Your task to perform on an android device: turn on airplane mode Image 0: 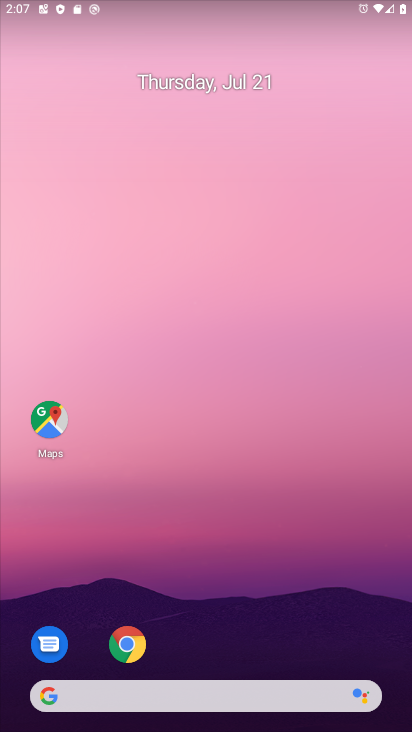
Step 0: drag from (224, 4) to (238, 484)
Your task to perform on an android device: turn on airplane mode Image 1: 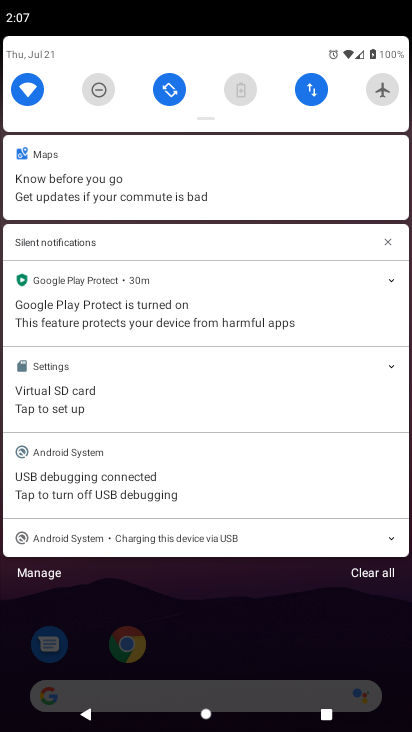
Step 1: click (373, 91)
Your task to perform on an android device: turn on airplane mode Image 2: 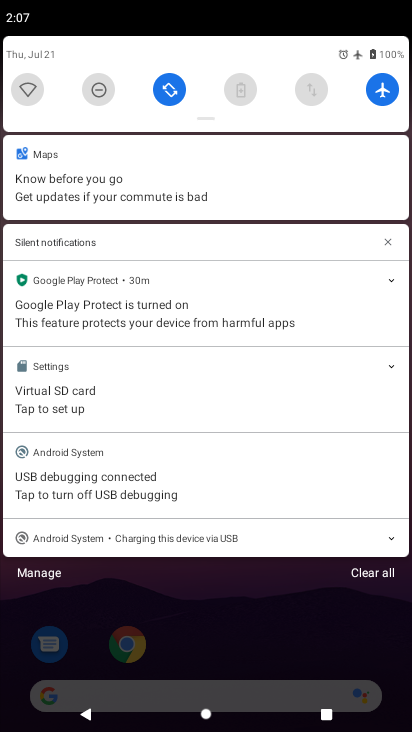
Step 2: task complete